Your task to perform on an android device: Play the last video I watched on Youtube Image 0: 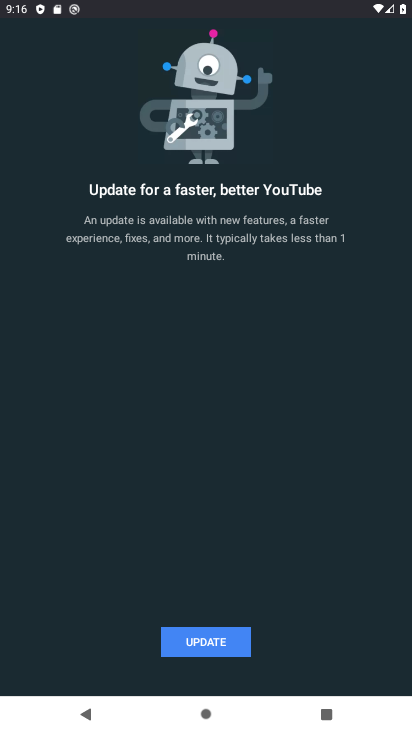
Step 0: press home button
Your task to perform on an android device: Play the last video I watched on Youtube Image 1: 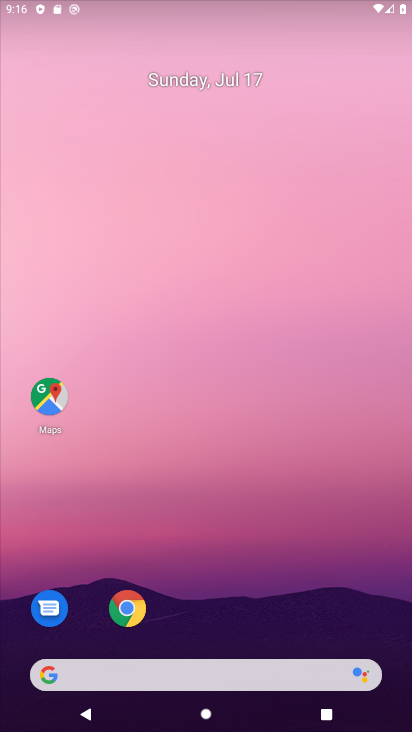
Step 1: drag from (314, 555) to (276, 54)
Your task to perform on an android device: Play the last video I watched on Youtube Image 2: 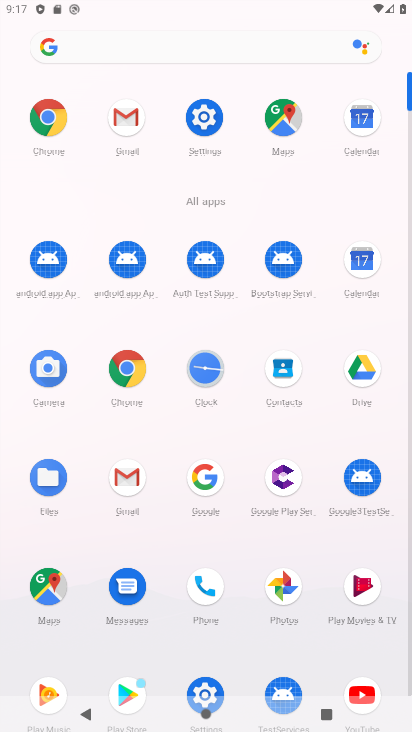
Step 2: click (369, 694)
Your task to perform on an android device: Play the last video I watched on Youtube Image 3: 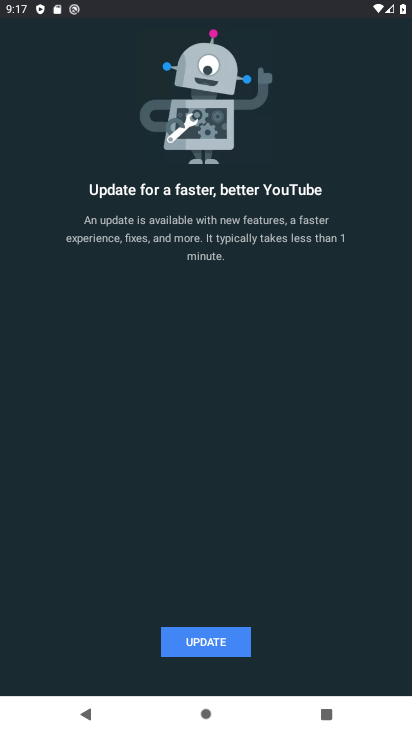
Step 3: click (214, 636)
Your task to perform on an android device: Play the last video I watched on Youtube Image 4: 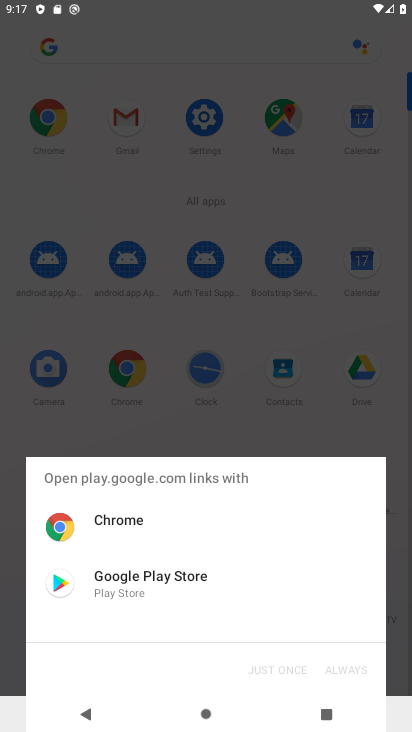
Step 4: click (147, 576)
Your task to perform on an android device: Play the last video I watched on Youtube Image 5: 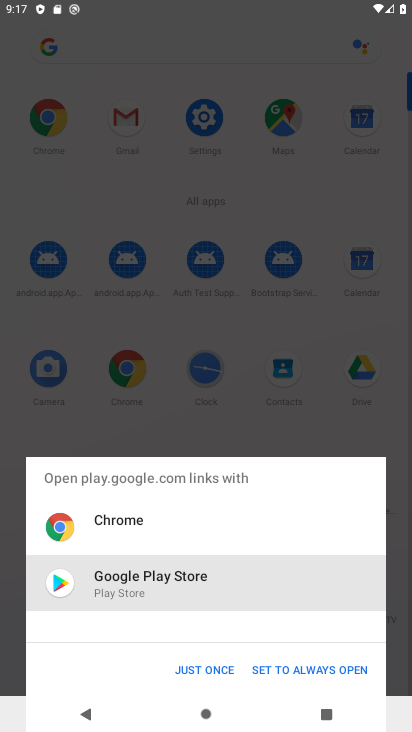
Step 5: click (195, 660)
Your task to perform on an android device: Play the last video I watched on Youtube Image 6: 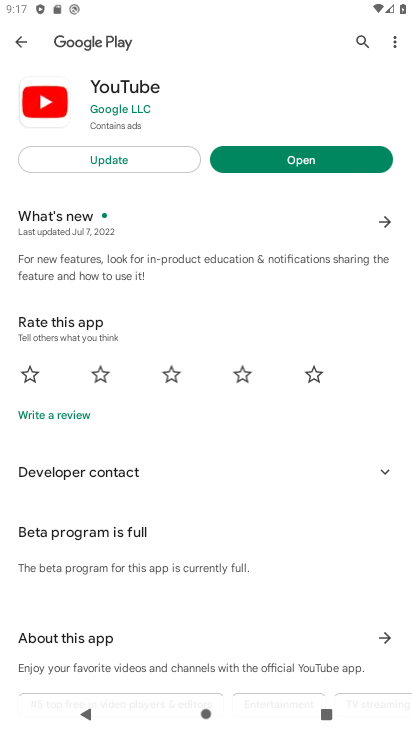
Step 6: click (316, 167)
Your task to perform on an android device: Play the last video I watched on Youtube Image 7: 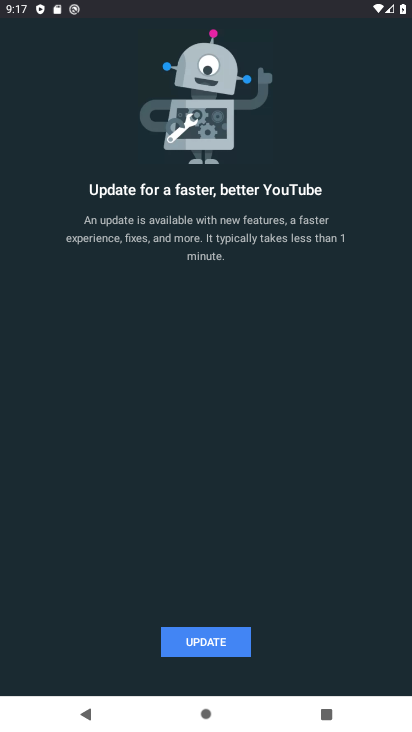
Step 7: click (205, 645)
Your task to perform on an android device: Play the last video I watched on Youtube Image 8: 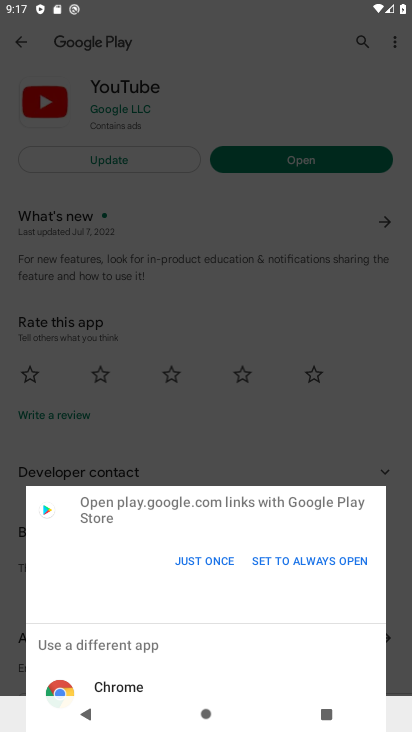
Step 8: click (196, 553)
Your task to perform on an android device: Play the last video I watched on Youtube Image 9: 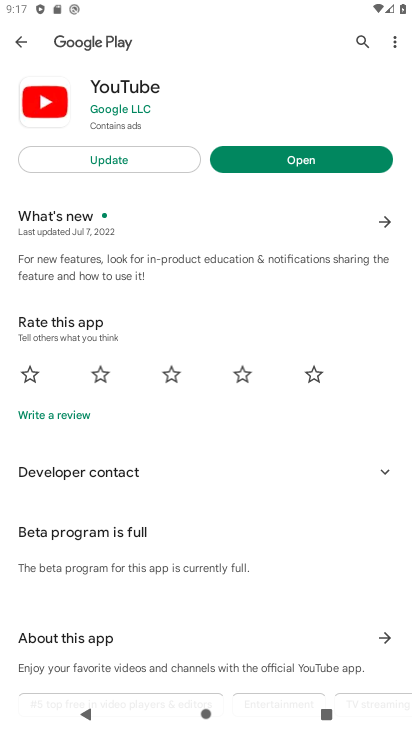
Step 9: click (127, 162)
Your task to perform on an android device: Play the last video I watched on Youtube Image 10: 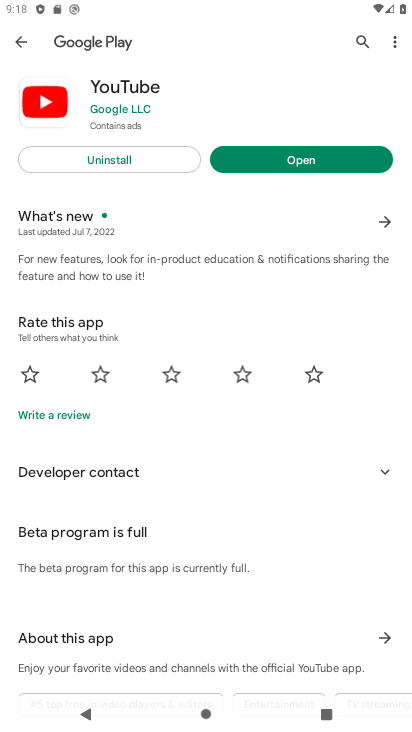
Step 10: click (306, 154)
Your task to perform on an android device: Play the last video I watched on Youtube Image 11: 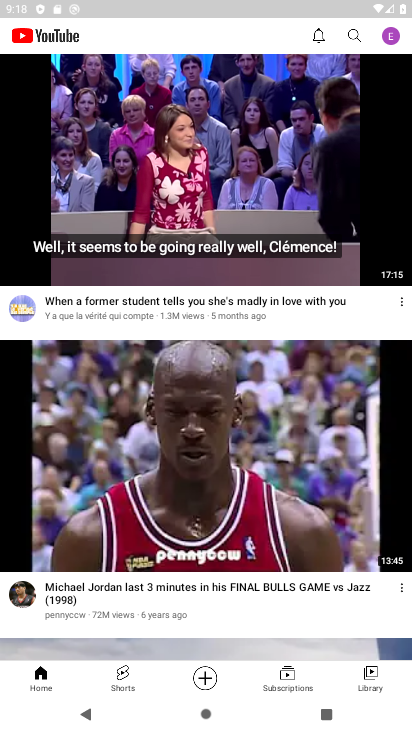
Step 11: click (373, 677)
Your task to perform on an android device: Play the last video I watched on Youtube Image 12: 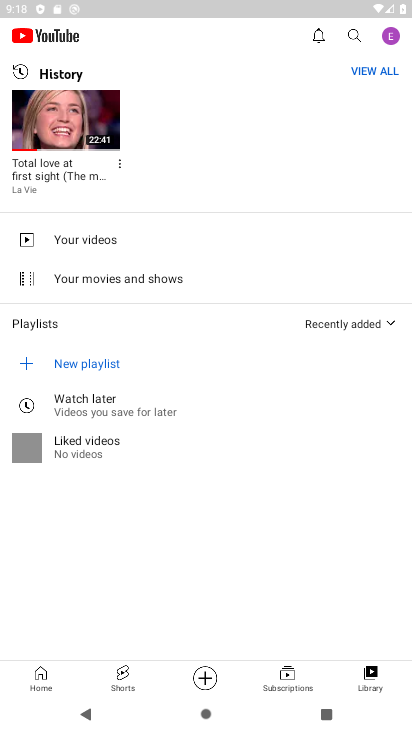
Step 12: click (51, 138)
Your task to perform on an android device: Play the last video I watched on Youtube Image 13: 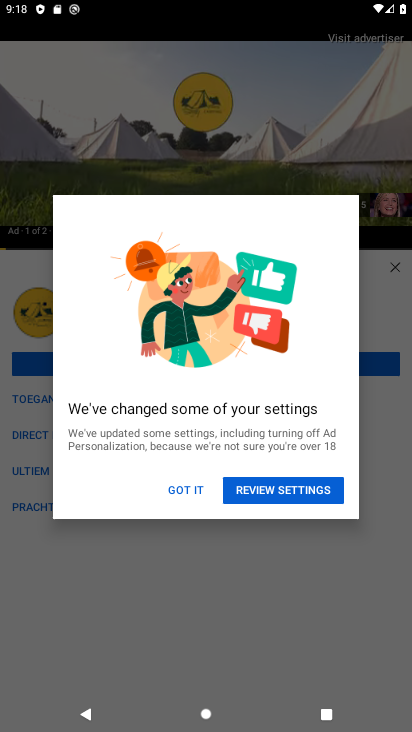
Step 13: click (182, 493)
Your task to perform on an android device: Play the last video I watched on Youtube Image 14: 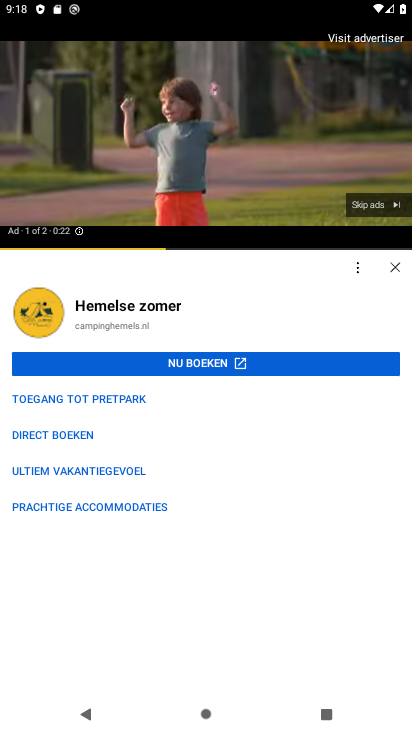
Step 14: click (382, 202)
Your task to perform on an android device: Play the last video I watched on Youtube Image 15: 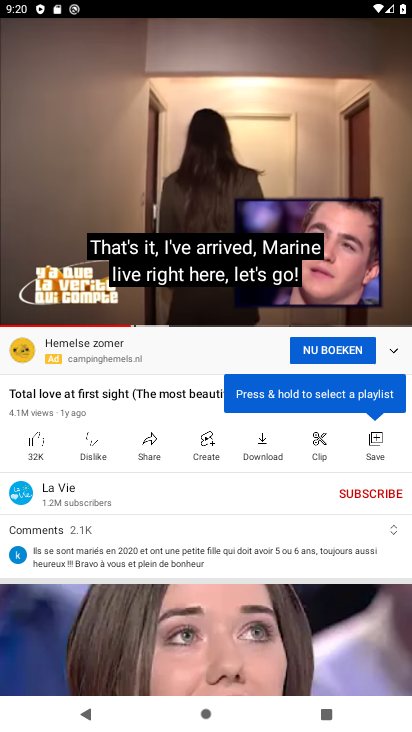
Step 15: task complete